Your task to perform on an android device: Turn on the flashlight Image 0: 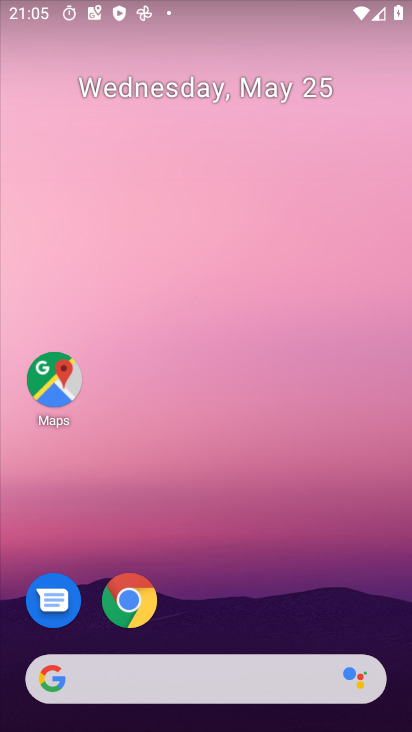
Step 0: drag from (392, 631) to (324, 158)
Your task to perform on an android device: Turn on the flashlight Image 1: 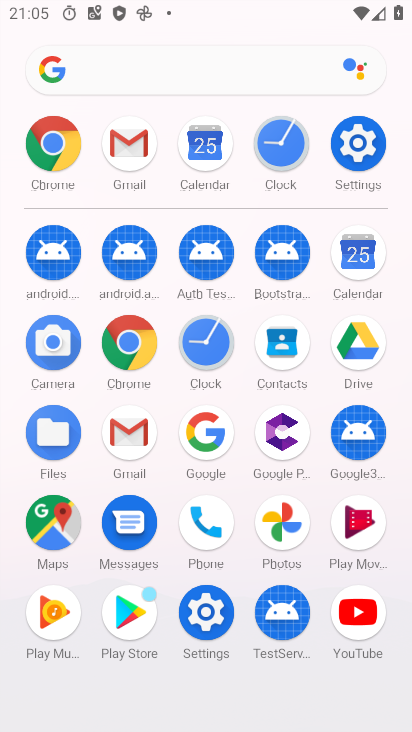
Step 1: click (367, 154)
Your task to perform on an android device: Turn on the flashlight Image 2: 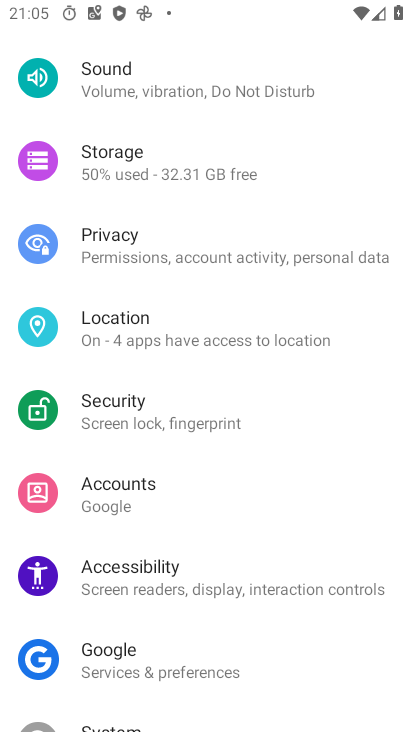
Step 2: drag from (261, 174) to (259, 528)
Your task to perform on an android device: Turn on the flashlight Image 3: 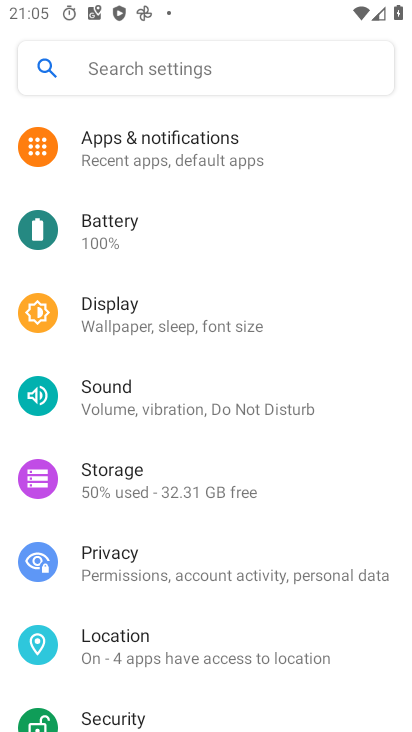
Step 3: click (184, 59)
Your task to perform on an android device: Turn on the flashlight Image 4: 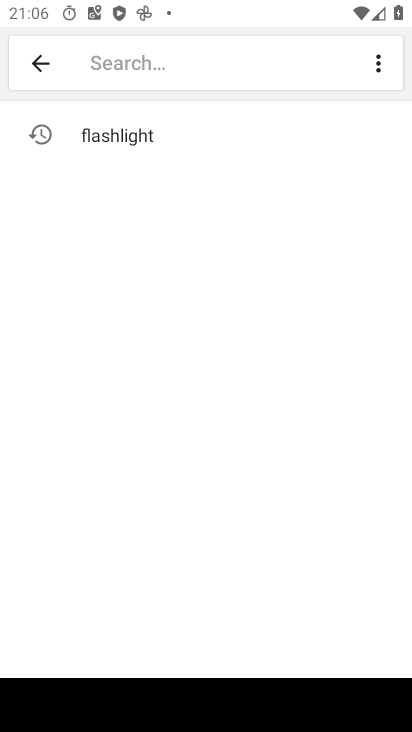
Step 4: type "flashlight "
Your task to perform on an android device: Turn on the flashlight Image 5: 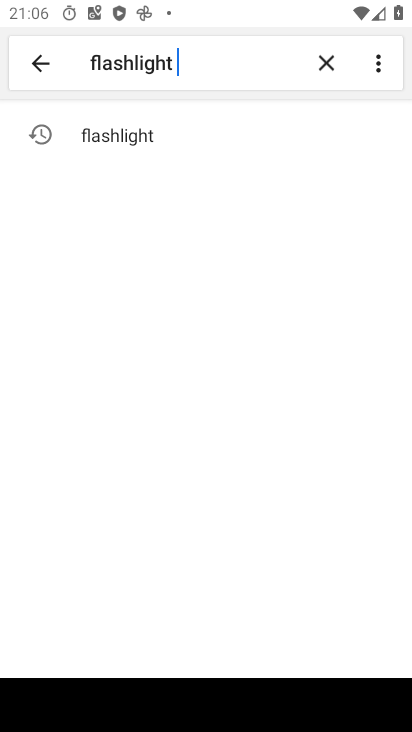
Step 5: click (116, 141)
Your task to perform on an android device: Turn on the flashlight Image 6: 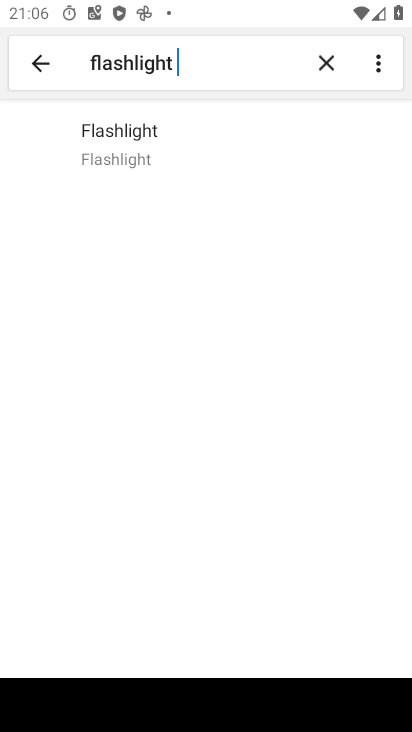
Step 6: task complete